Your task to perform on an android device: Open calendar and show me the third week of next month Image 0: 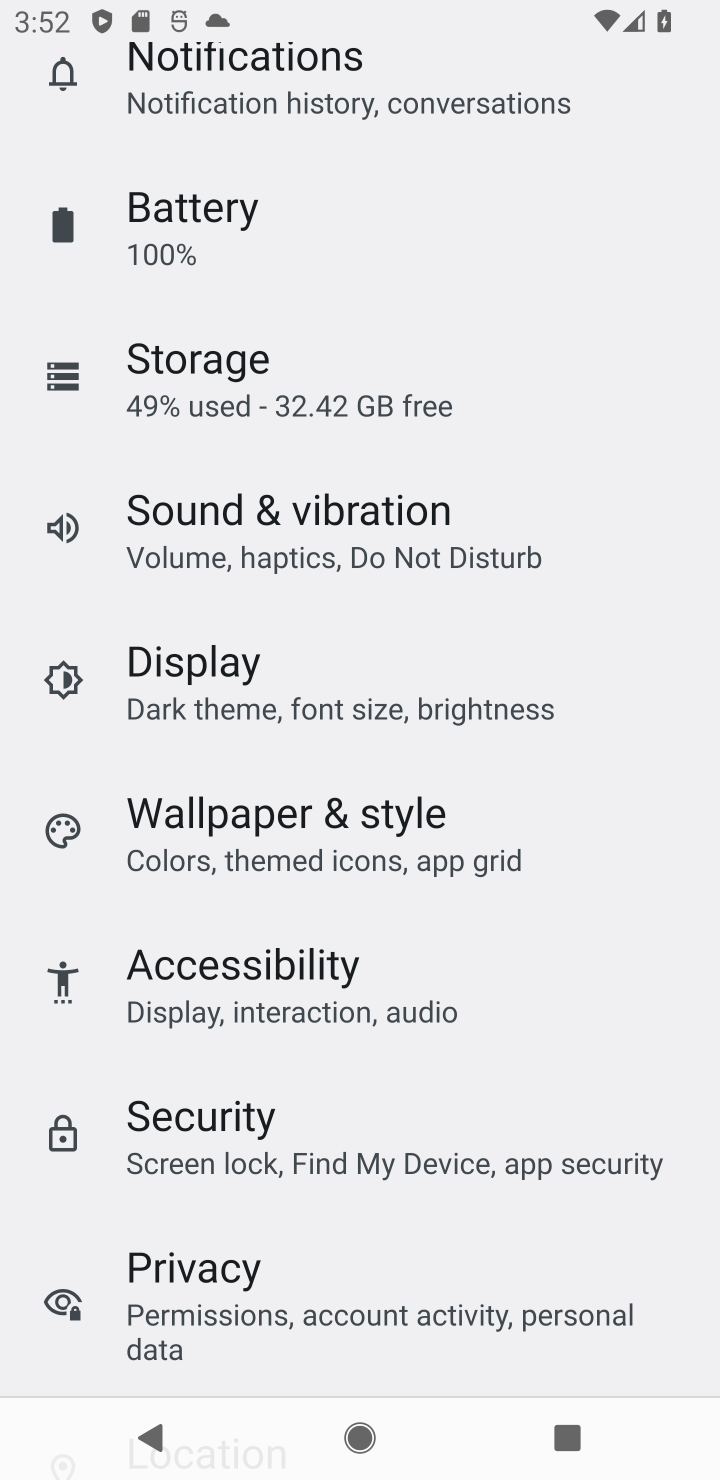
Step 0: press home button
Your task to perform on an android device: Open calendar and show me the third week of next month Image 1: 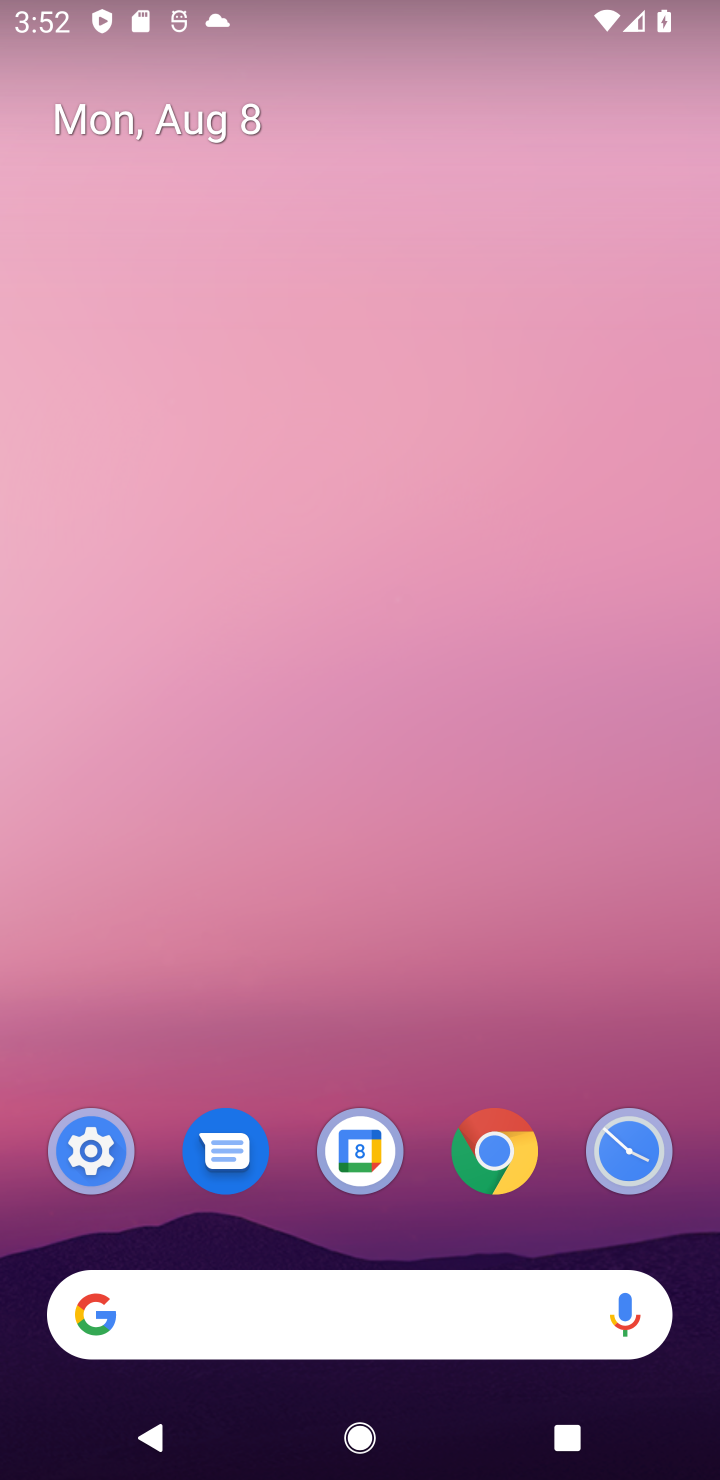
Step 1: click (365, 1132)
Your task to perform on an android device: Open calendar and show me the third week of next month Image 2: 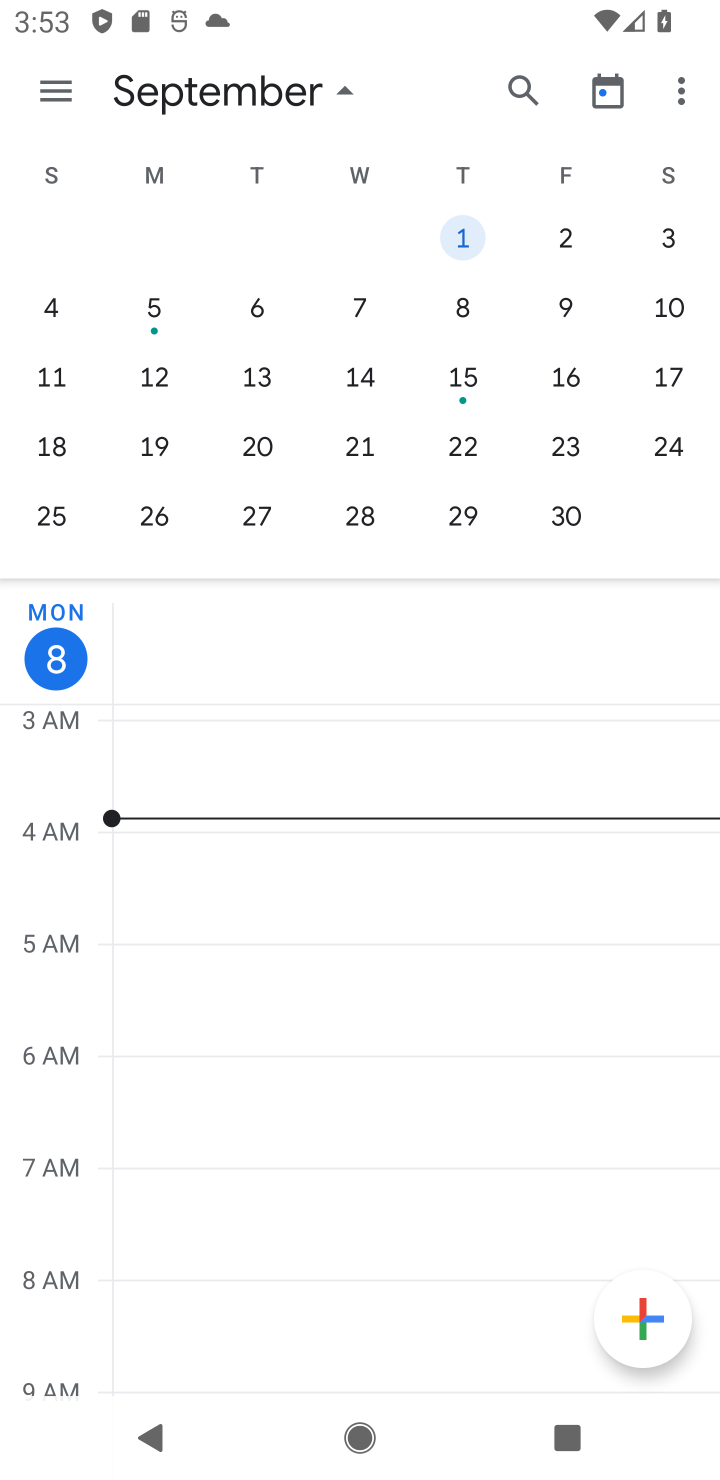
Step 2: click (40, 394)
Your task to perform on an android device: Open calendar and show me the third week of next month Image 3: 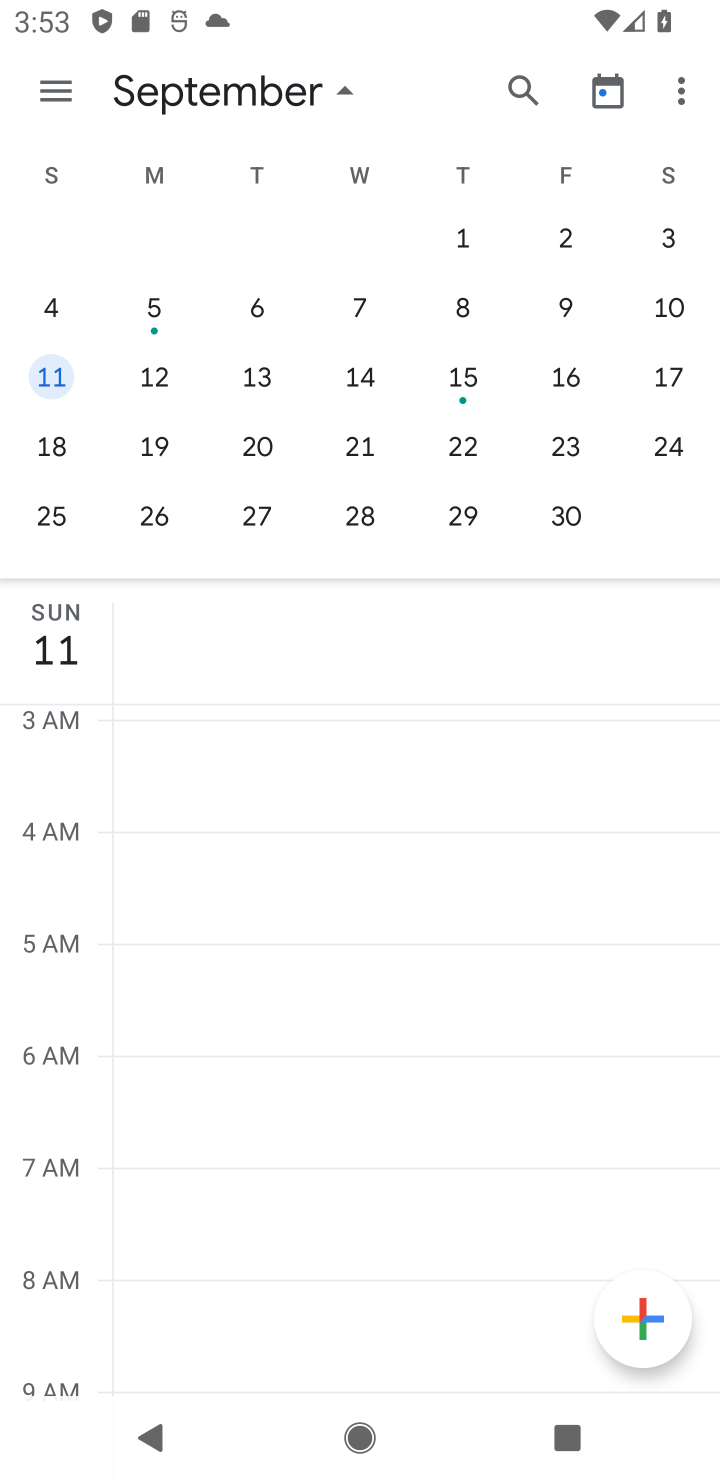
Step 3: click (129, 389)
Your task to perform on an android device: Open calendar and show me the third week of next month Image 4: 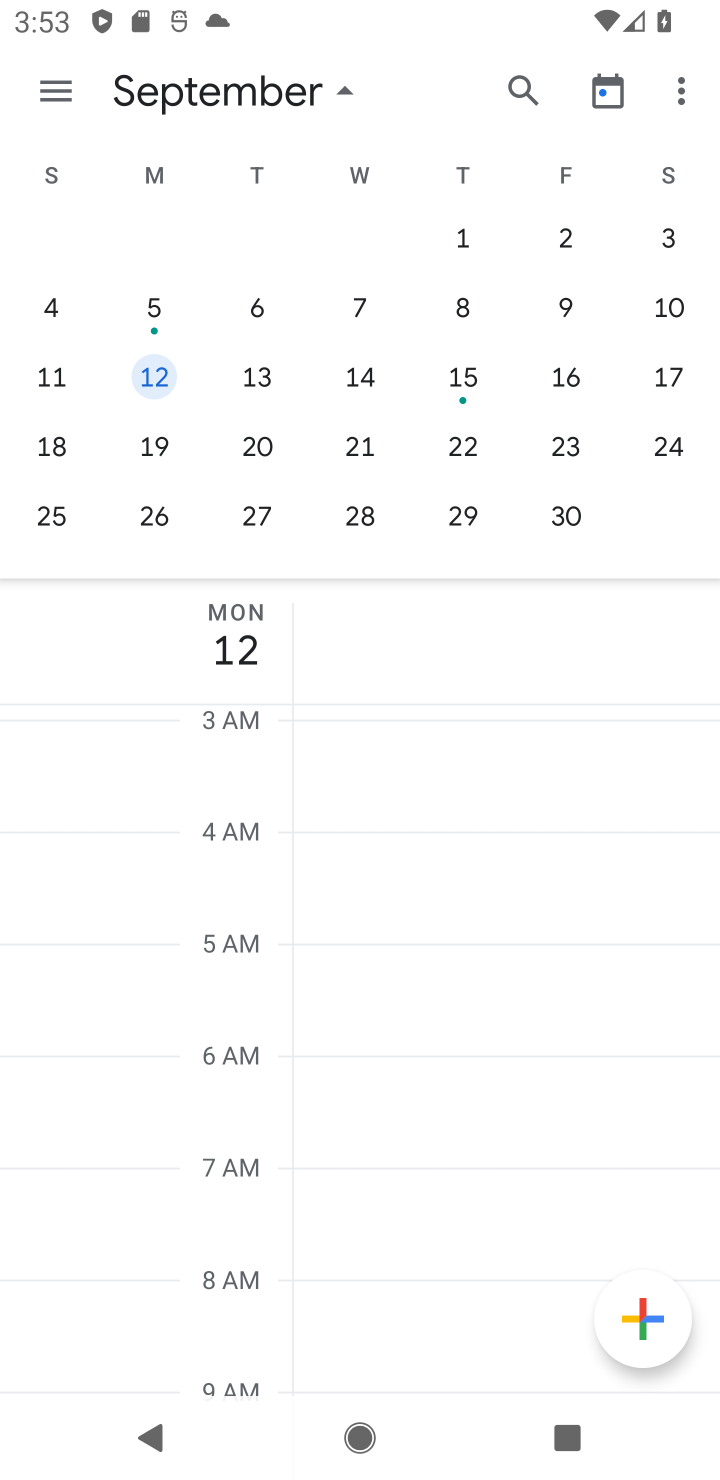
Step 4: click (52, 365)
Your task to perform on an android device: Open calendar and show me the third week of next month Image 5: 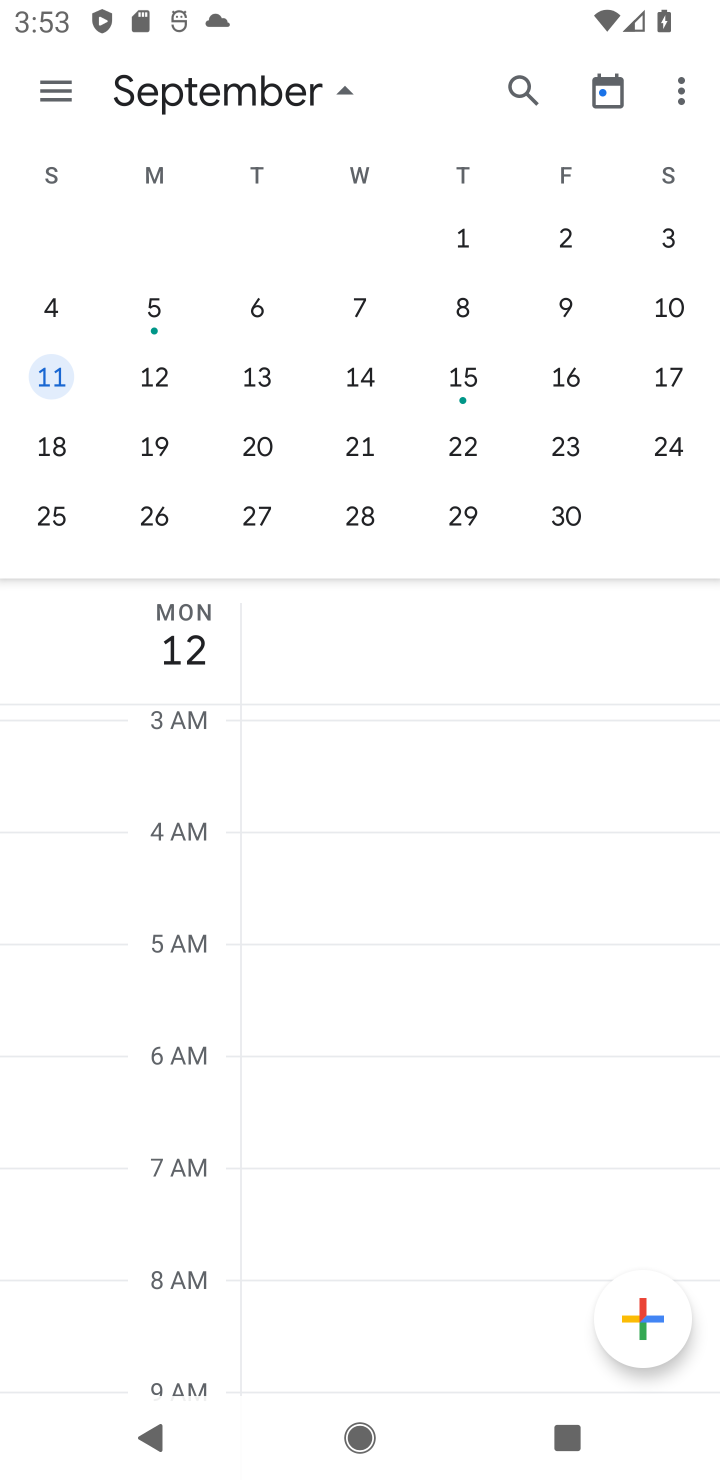
Step 5: click (132, 375)
Your task to perform on an android device: Open calendar and show me the third week of next month Image 6: 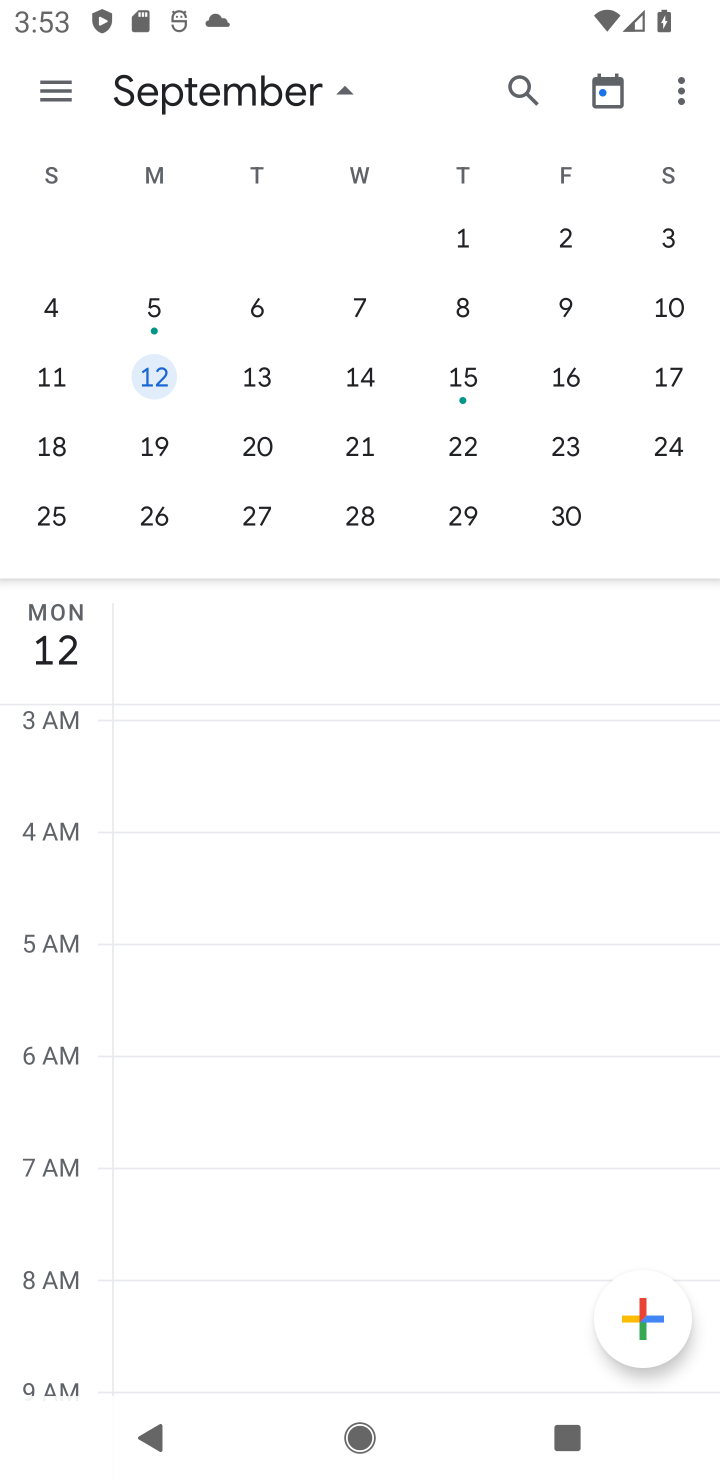
Step 6: task complete